Your task to perform on an android device: change the upload size in google photos Image 0: 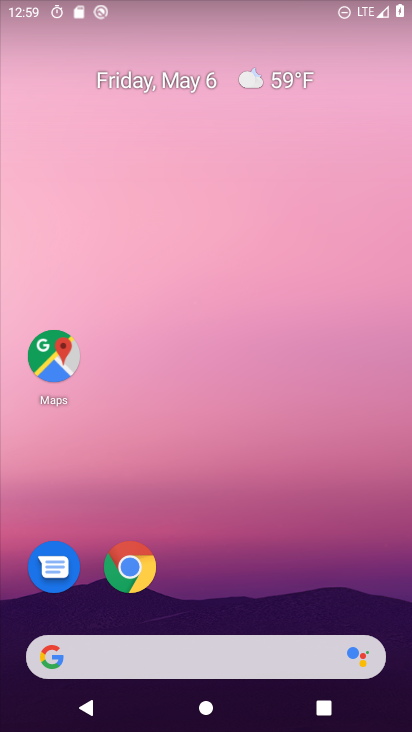
Step 0: drag from (302, 595) to (265, 13)
Your task to perform on an android device: change the upload size in google photos Image 1: 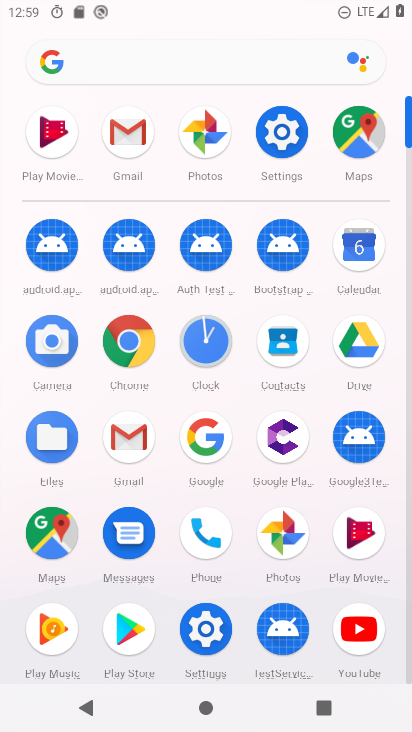
Step 1: click (208, 149)
Your task to perform on an android device: change the upload size in google photos Image 2: 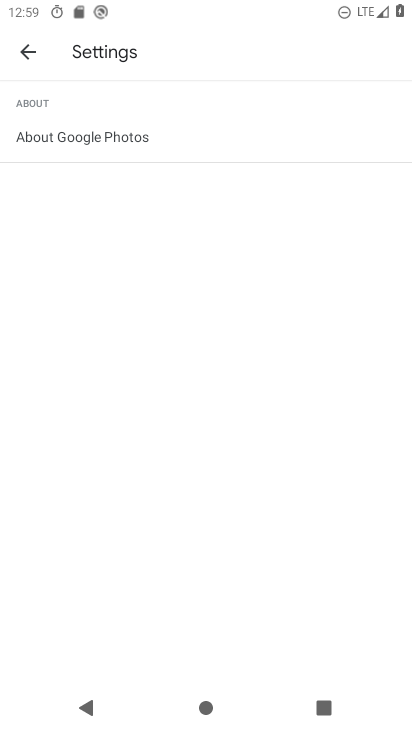
Step 2: click (23, 48)
Your task to perform on an android device: change the upload size in google photos Image 3: 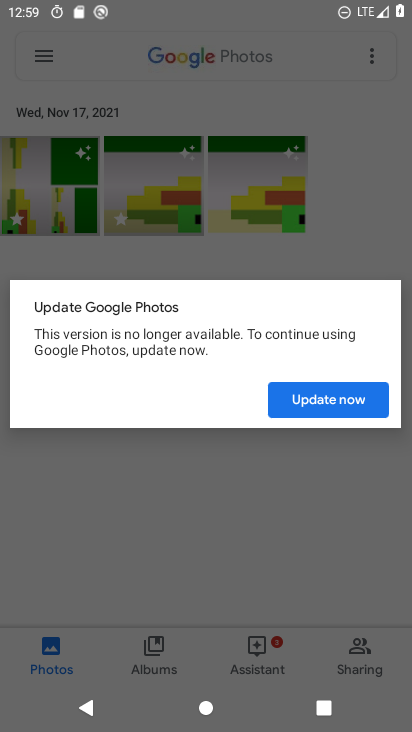
Step 3: click (338, 400)
Your task to perform on an android device: change the upload size in google photos Image 4: 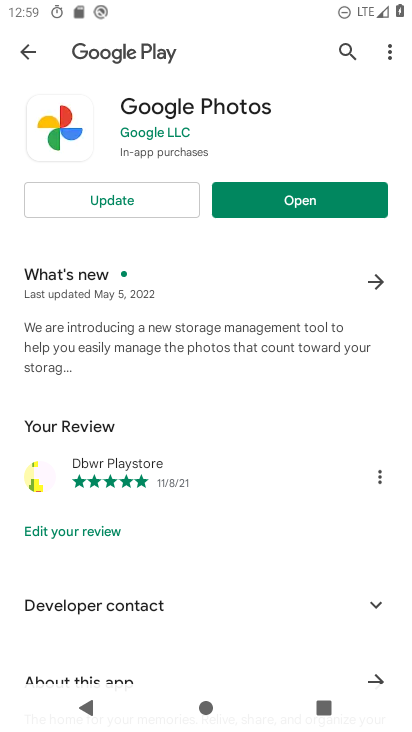
Step 4: click (294, 200)
Your task to perform on an android device: change the upload size in google photos Image 5: 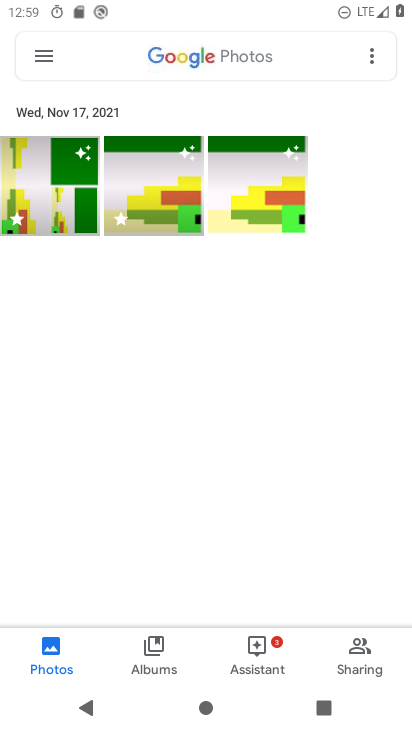
Step 5: click (48, 66)
Your task to perform on an android device: change the upload size in google photos Image 6: 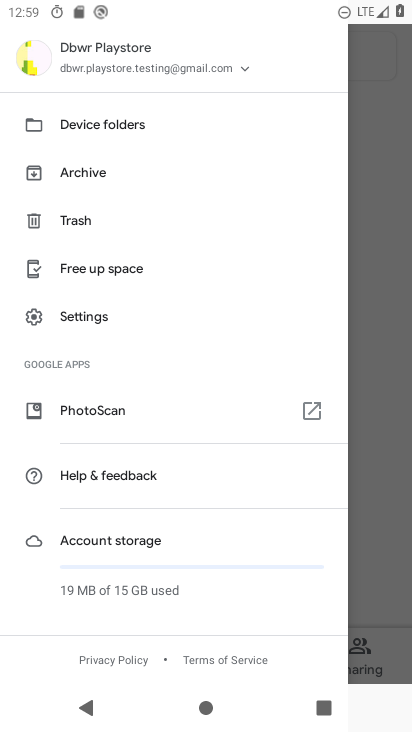
Step 6: click (89, 316)
Your task to perform on an android device: change the upload size in google photos Image 7: 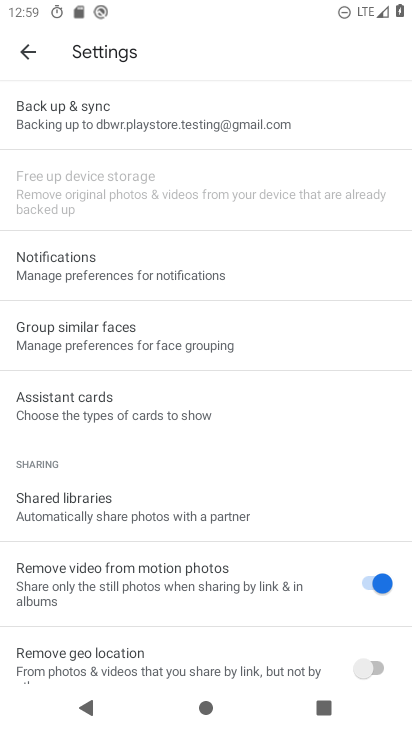
Step 7: click (87, 112)
Your task to perform on an android device: change the upload size in google photos Image 8: 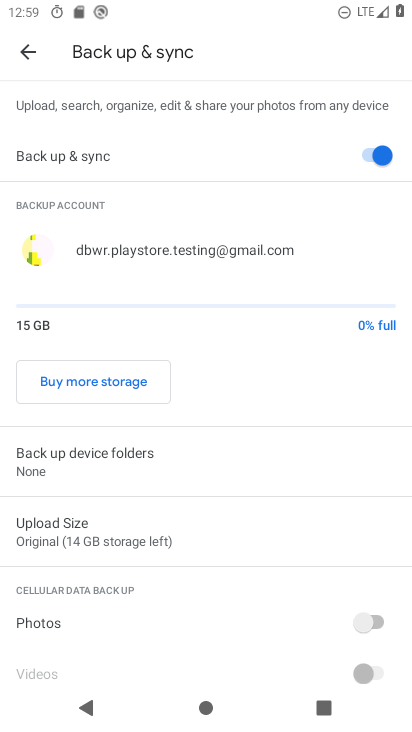
Step 8: click (111, 539)
Your task to perform on an android device: change the upload size in google photos Image 9: 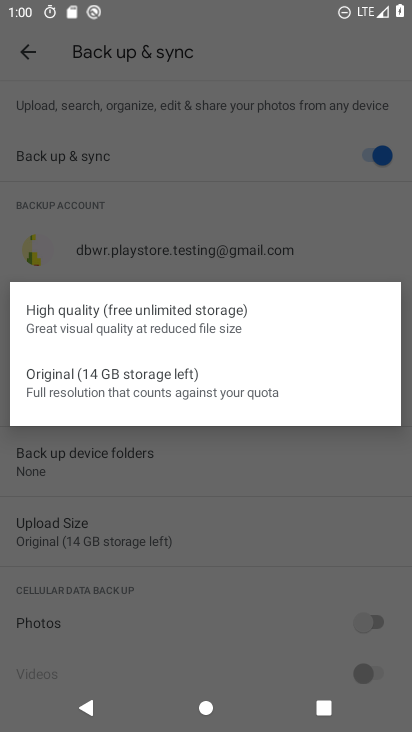
Step 9: click (50, 325)
Your task to perform on an android device: change the upload size in google photos Image 10: 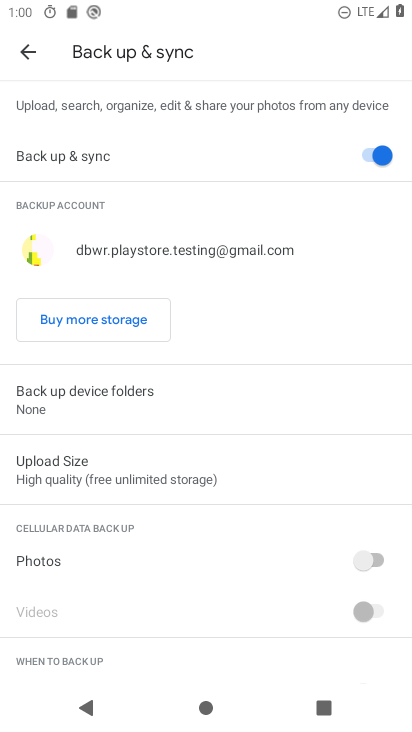
Step 10: task complete